Your task to perform on an android device: turn off data saver in the chrome app Image 0: 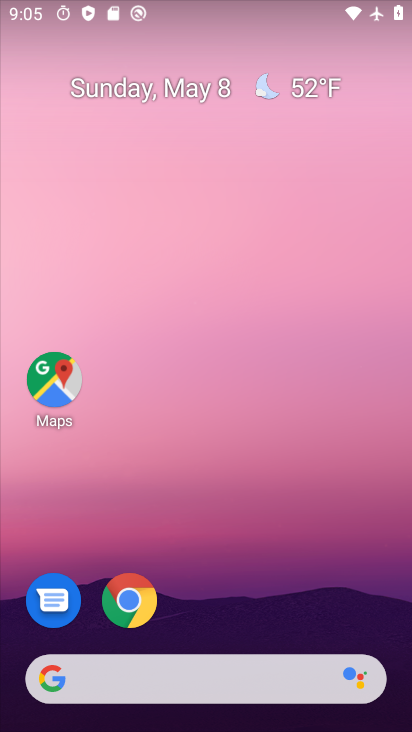
Step 0: click (144, 610)
Your task to perform on an android device: turn off data saver in the chrome app Image 1: 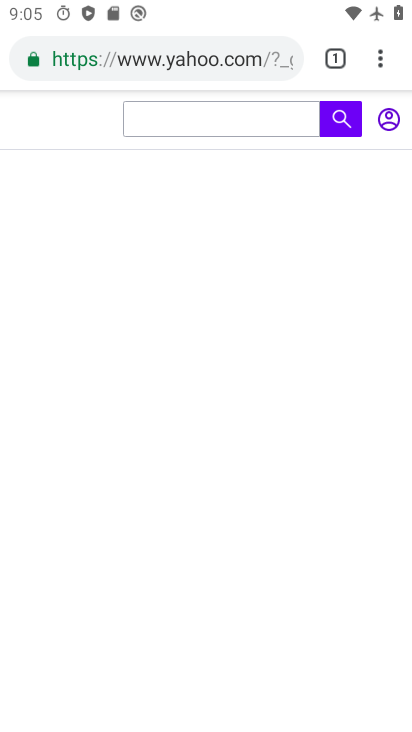
Step 1: drag from (379, 59) to (167, 629)
Your task to perform on an android device: turn off data saver in the chrome app Image 2: 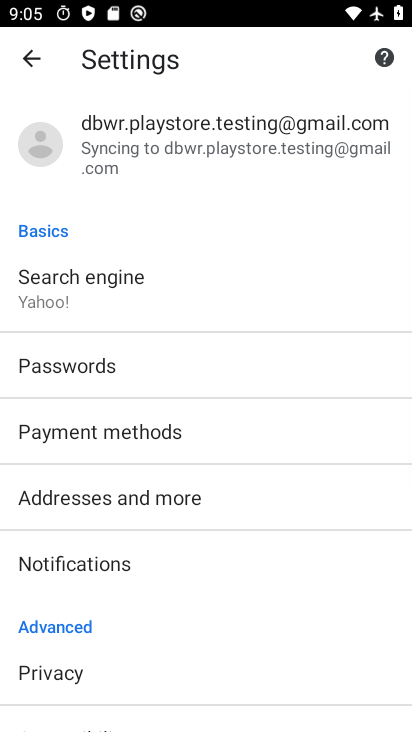
Step 2: drag from (131, 681) to (131, 245)
Your task to perform on an android device: turn off data saver in the chrome app Image 3: 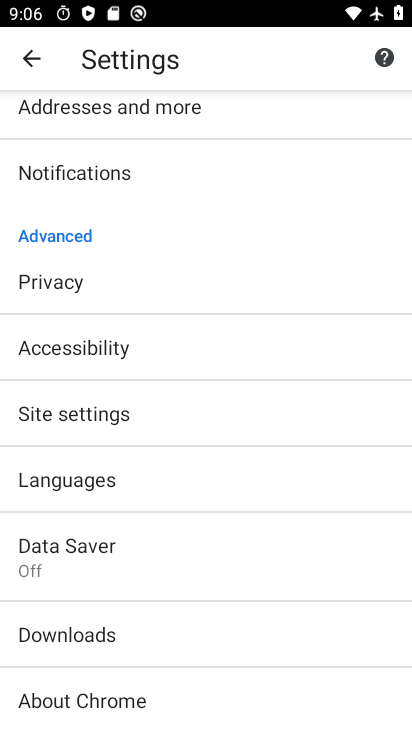
Step 3: click (115, 589)
Your task to perform on an android device: turn off data saver in the chrome app Image 4: 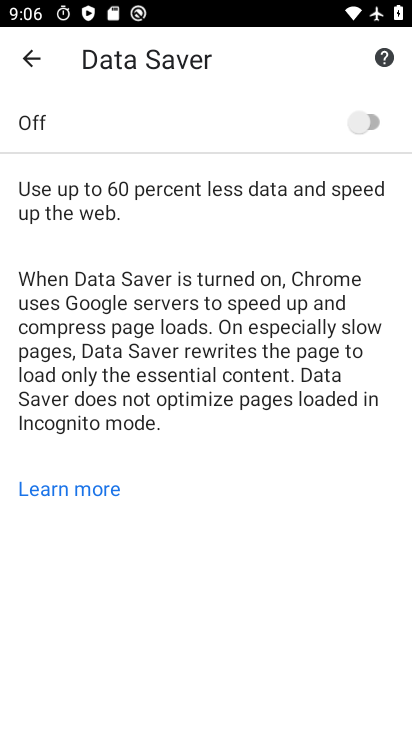
Step 4: task complete